Your task to perform on an android device: uninstall "Life360: Find Family & Friends" Image 0: 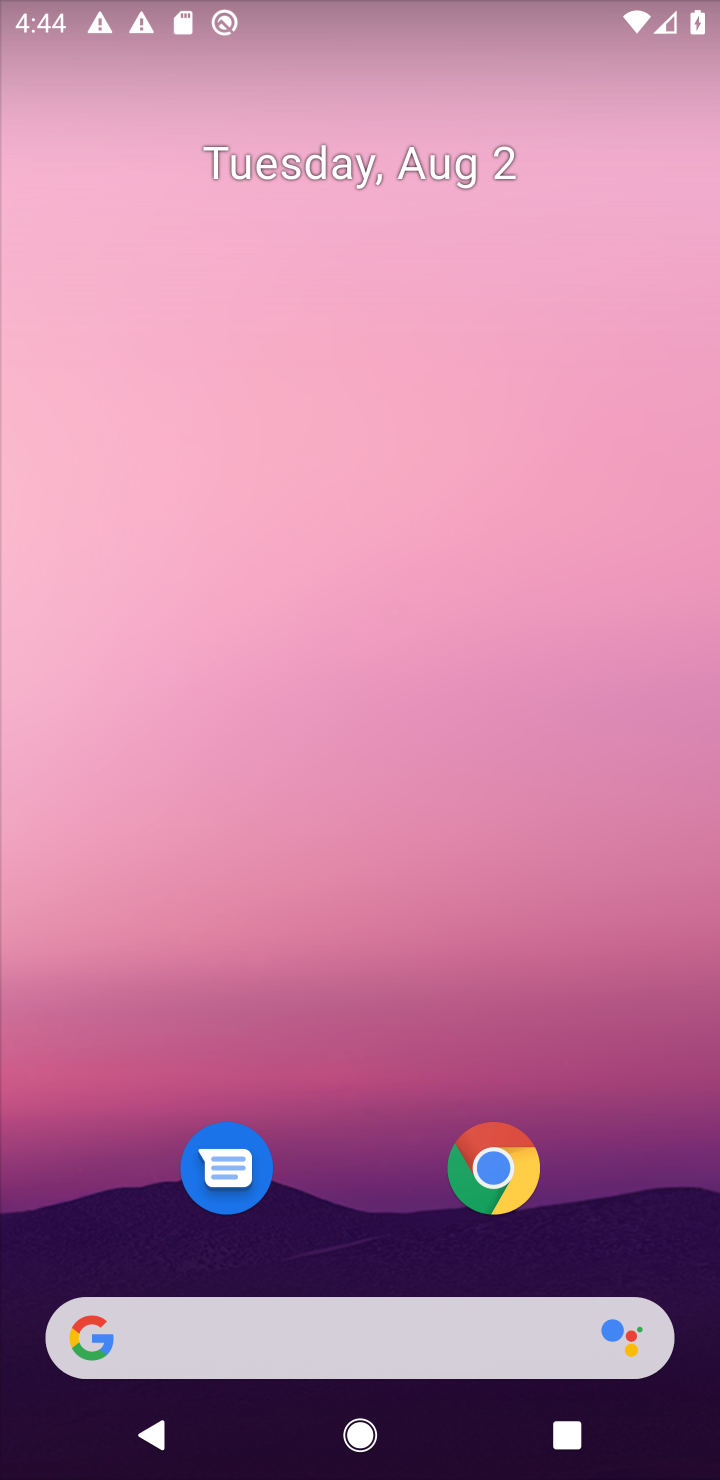
Step 0: drag from (300, 1253) to (594, 7)
Your task to perform on an android device: uninstall "Life360: Find Family & Friends" Image 1: 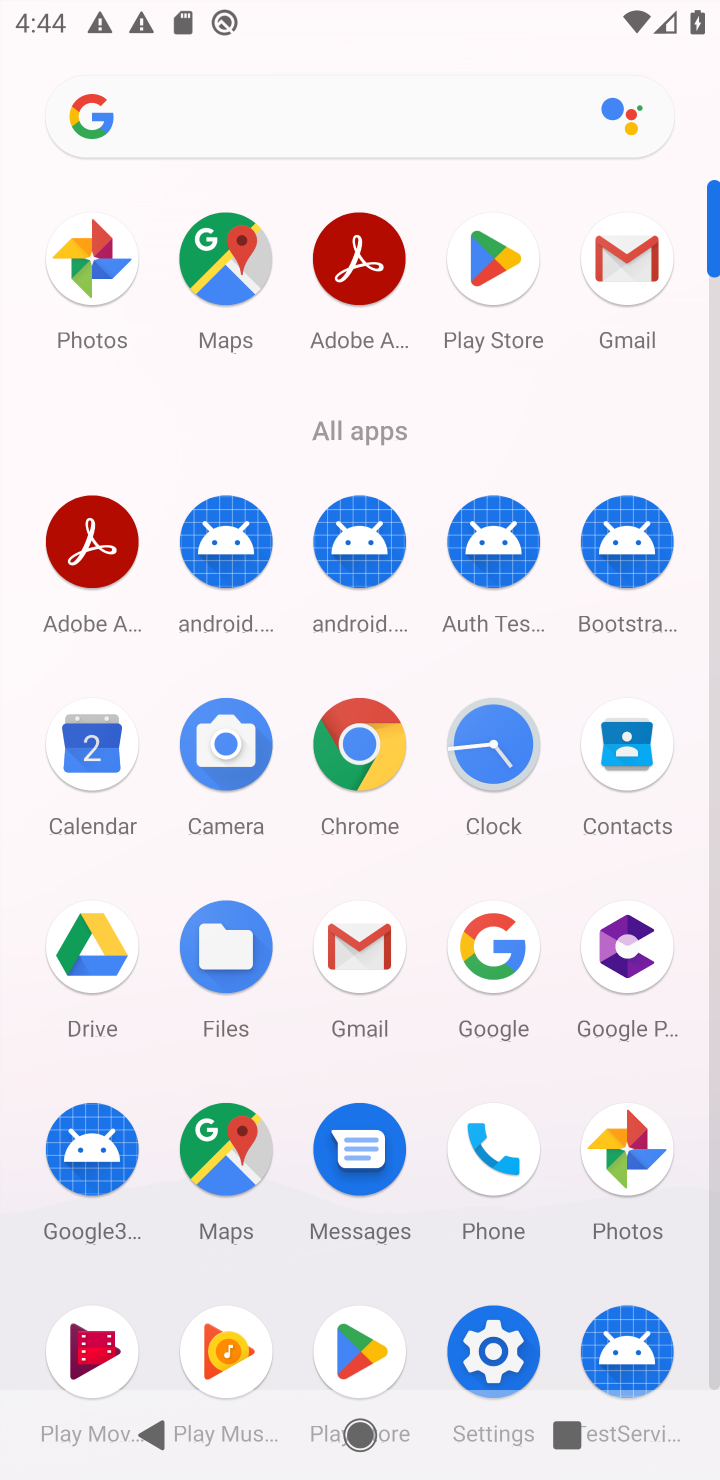
Step 1: click (495, 272)
Your task to perform on an android device: uninstall "Life360: Find Family & Friends" Image 2: 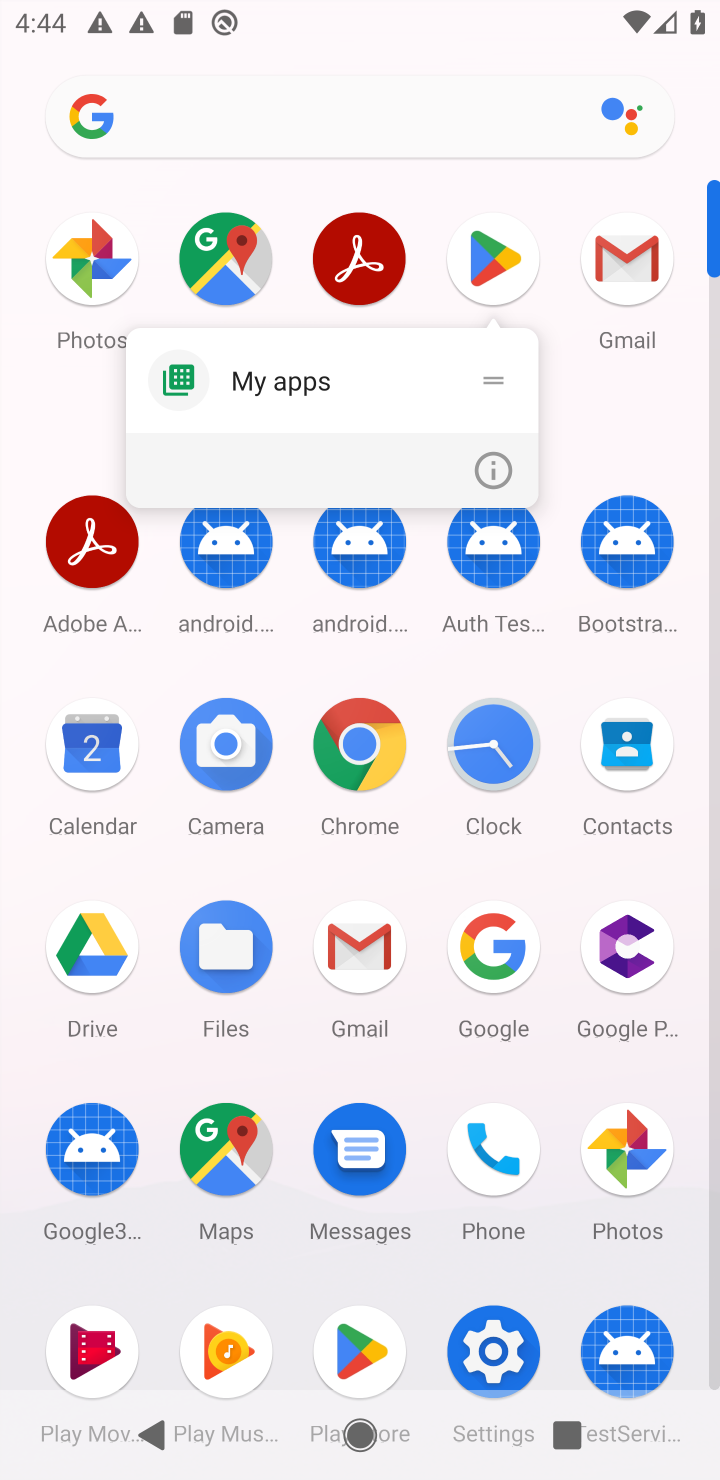
Step 2: click (497, 249)
Your task to perform on an android device: uninstall "Life360: Find Family & Friends" Image 3: 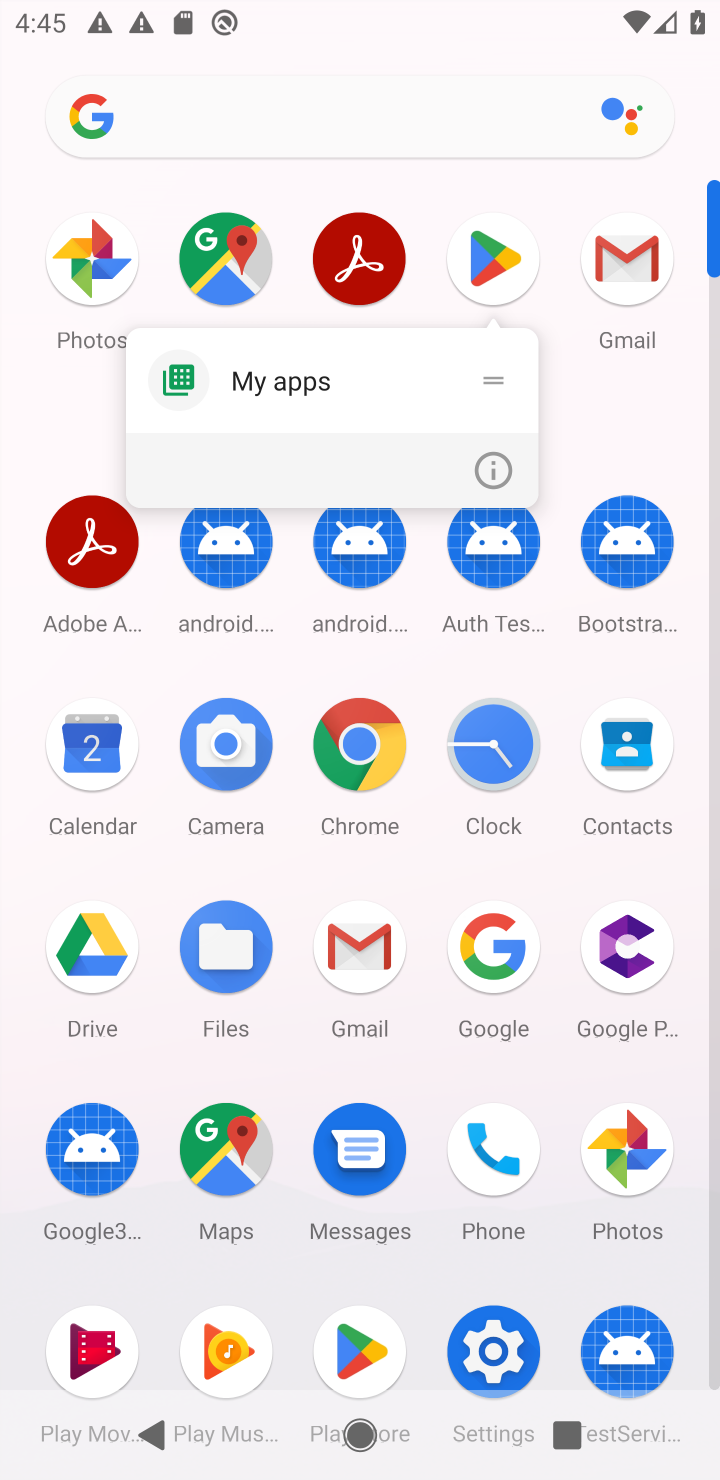
Step 3: click (484, 287)
Your task to perform on an android device: uninstall "Life360: Find Family & Friends" Image 4: 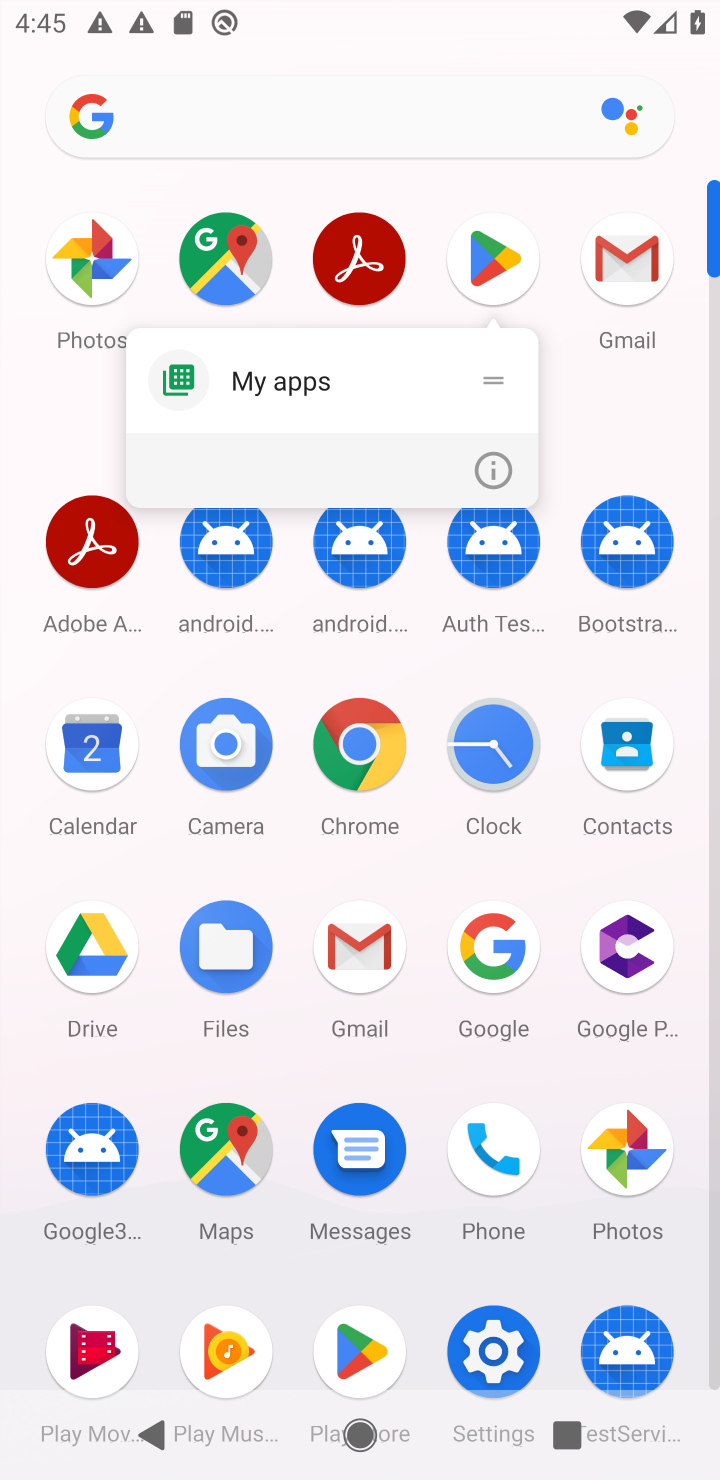
Step 4: click (468, 276)
Your task to perform on an android device: uninstall "Life360: Find Family & Friends" Image 5: 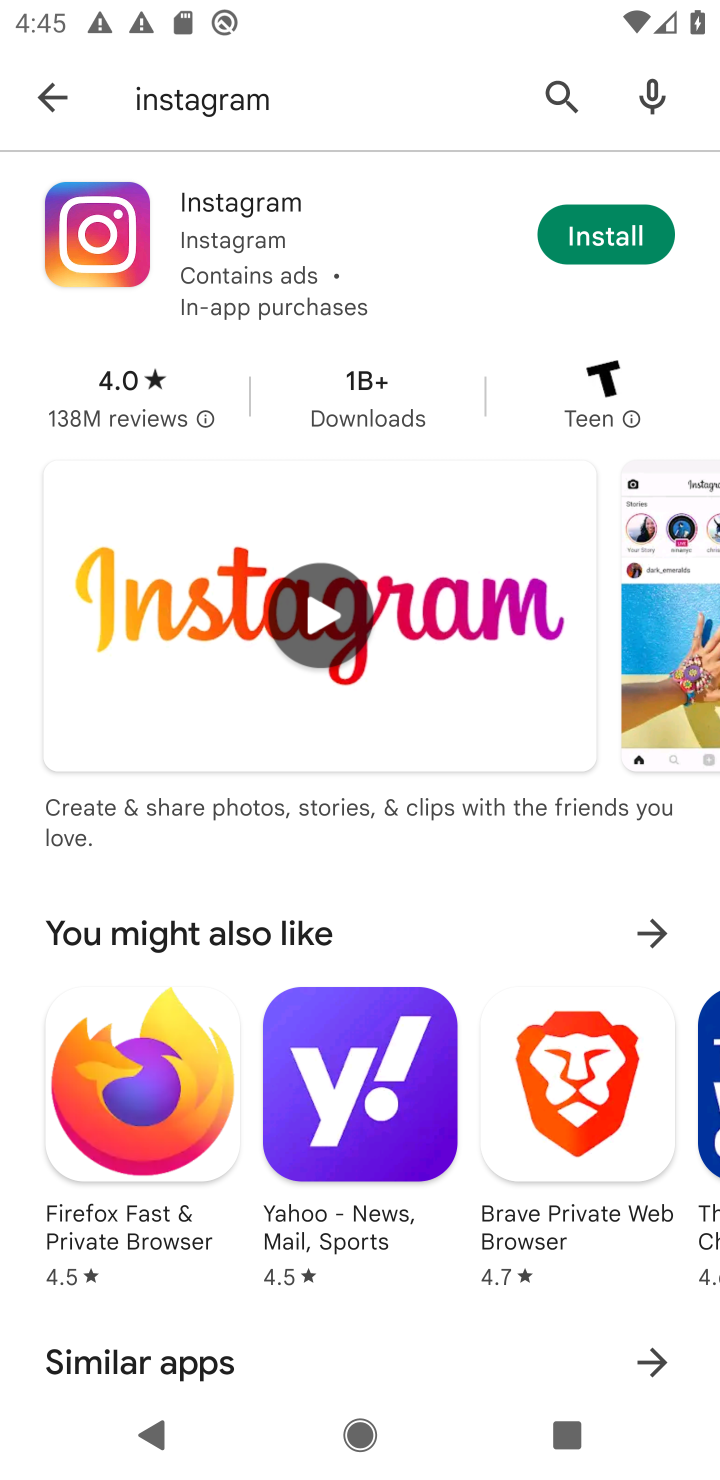
Step 5: click (273, 115)
Your task to perform on an android device: uninstall "Life360: Find Family & Friends" Image 6: 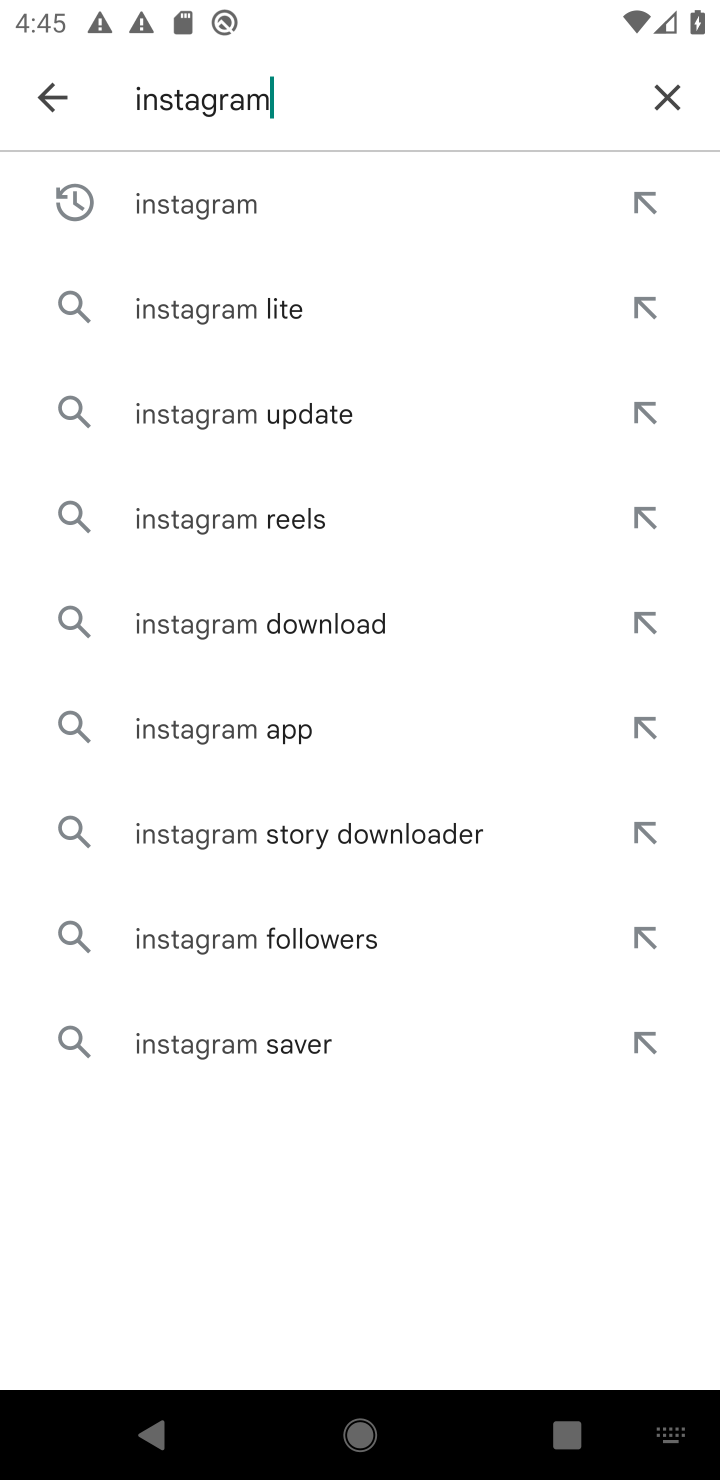
Step 6: click (679, 106)
Your task to perform on an android device: uninstall "Life360: Find Family & Friends" Image 7: 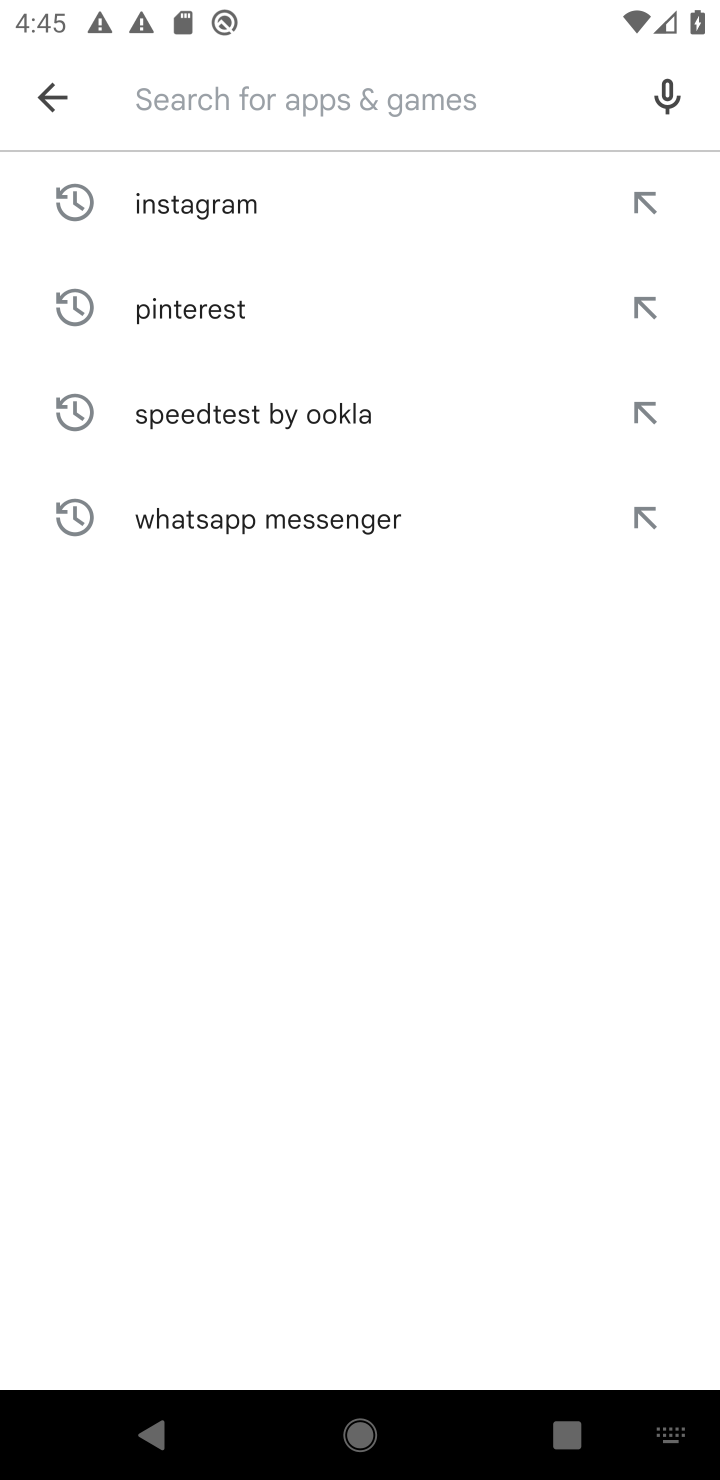
Step 7: type "life360"
Your task to perform on an android device: uninstall "Life360: Find Family & Friends" Image 8: 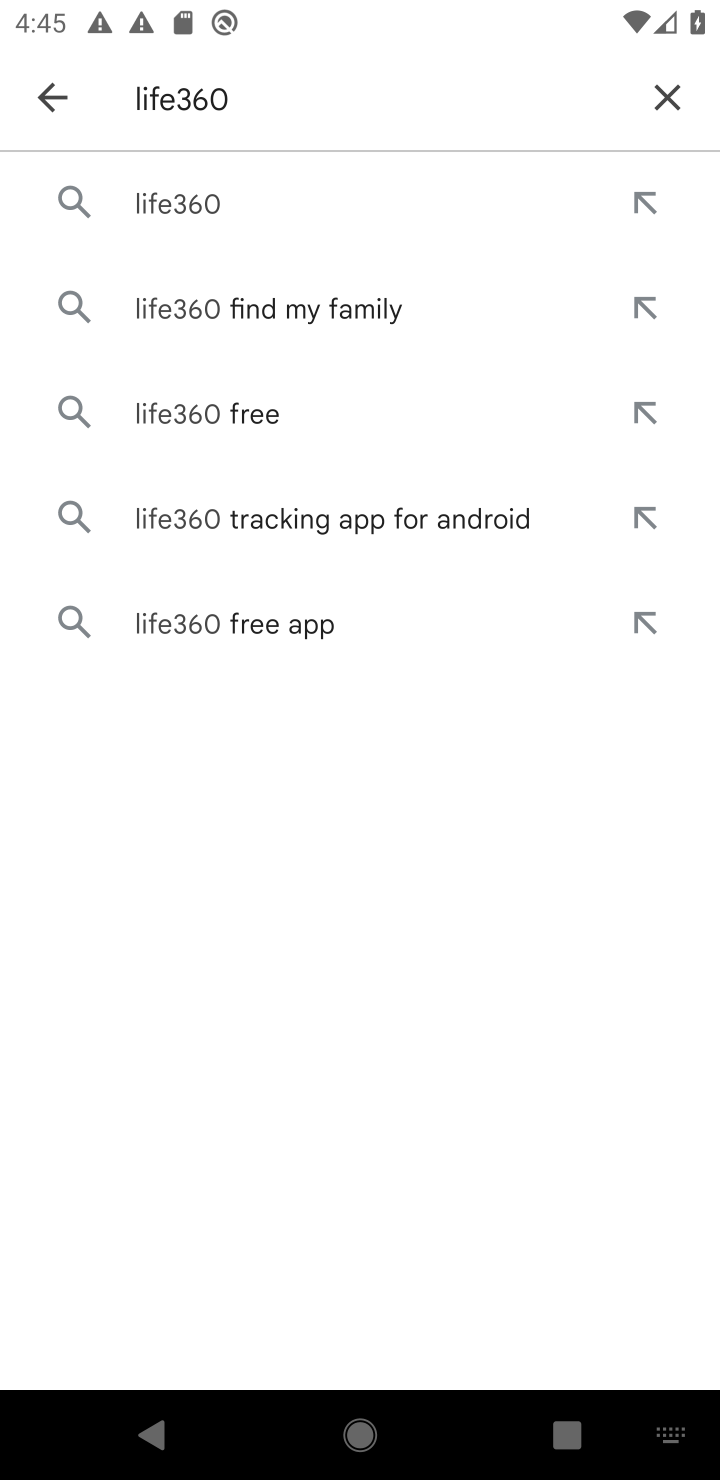
Step 8: click (203, 198)
Your task to perform on an android device: uninstall "Life360: Find Family & Friends" Image 9: 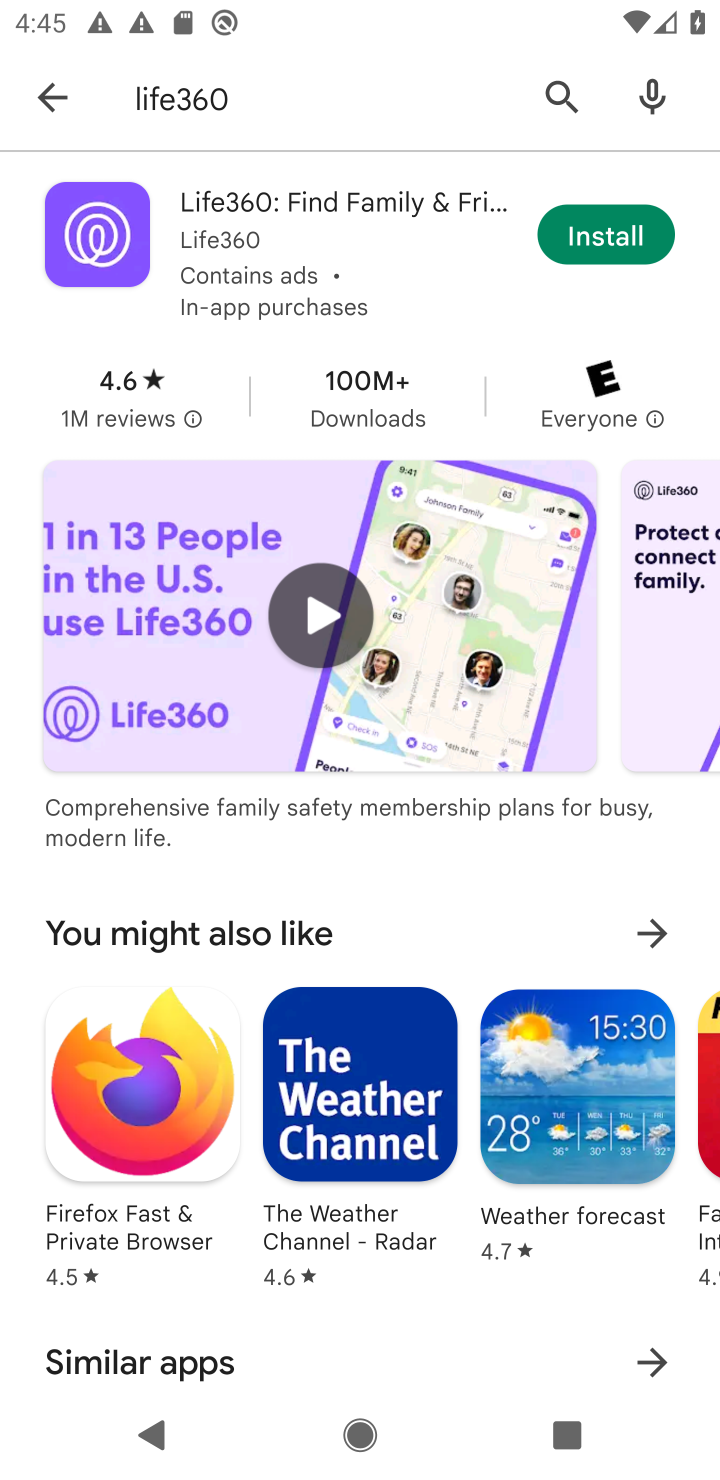
Step 9: task complete